Your task to perform on an android device: move a message to another label in the gmail app Image 0: 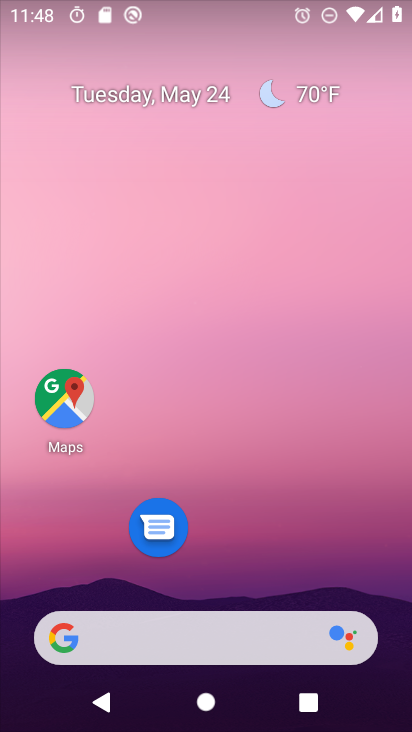
Step 0: drag from (249, 555) to (268, 72)
Your task to perform on an android device: move a message to another label in the gmail app Image 1: 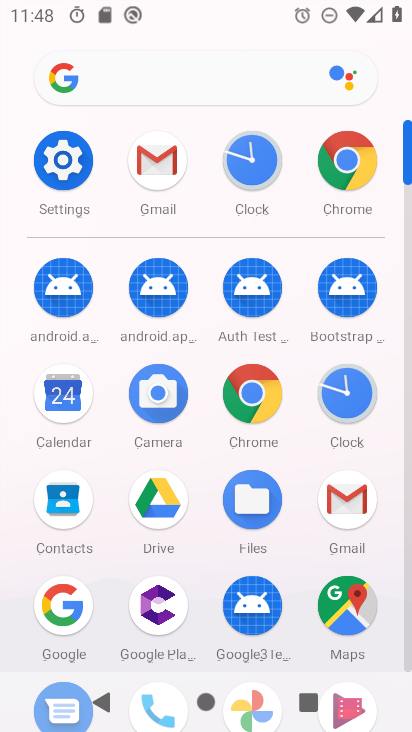
Step 1: click (350, 505)
Your task to perform on an android device: move a message to another label in the gmail app Image 2: 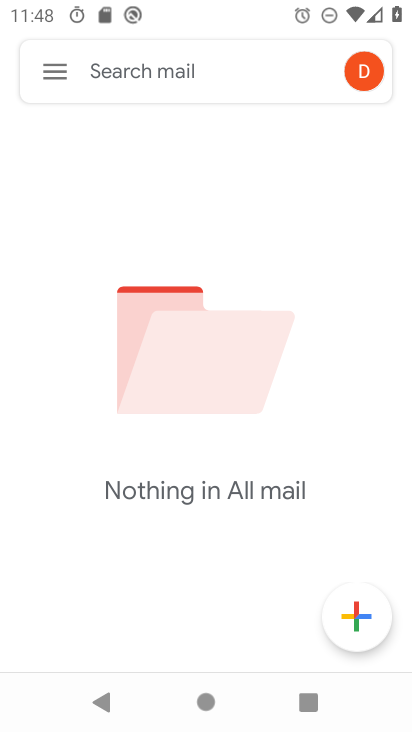
Step 2: click (51, 73)
Your task to perform on an android device: move a message to another label in the gmail app Image 3: 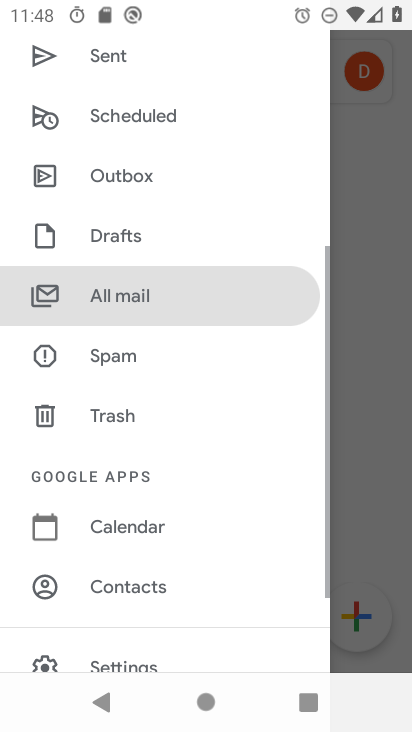
Step 3: click (353, 186)
Your task to perform on an android device: move a message to another label in the gmail app Image 4: 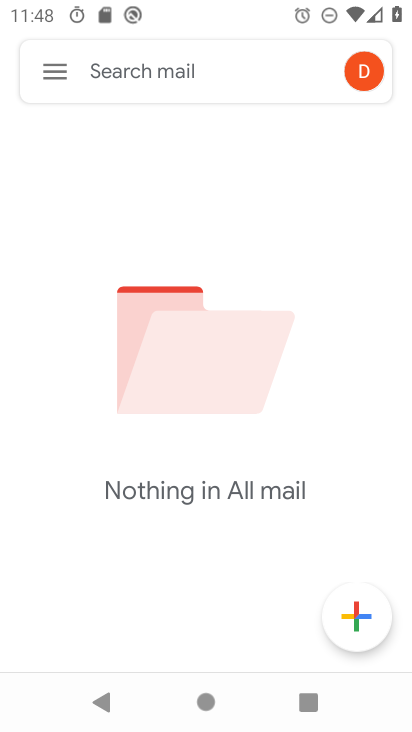
Step 4: task complete